Your task to perform on an android device: Go to accessibility settings Image 0: 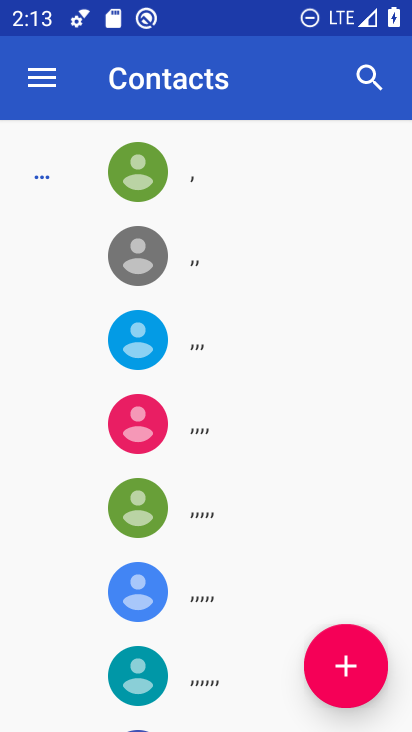
Step 0: press home button
Your task to perform on an android device: Go to accessibility settings Image 1: 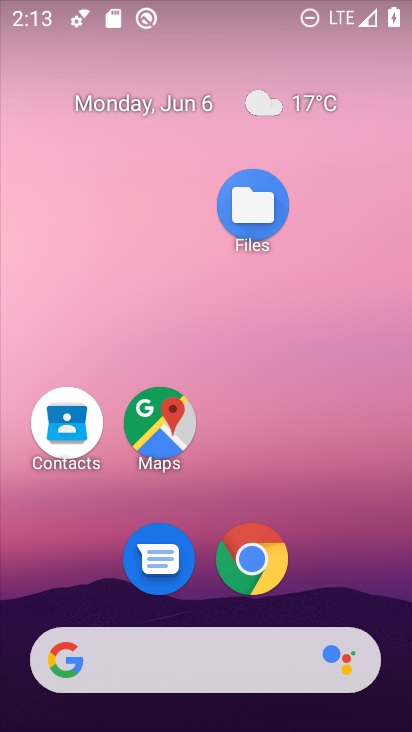
Step 1: drag from (257, 650) to (233, 112)
Your task to perform on an android device: Go to accessibility settings Image 2: 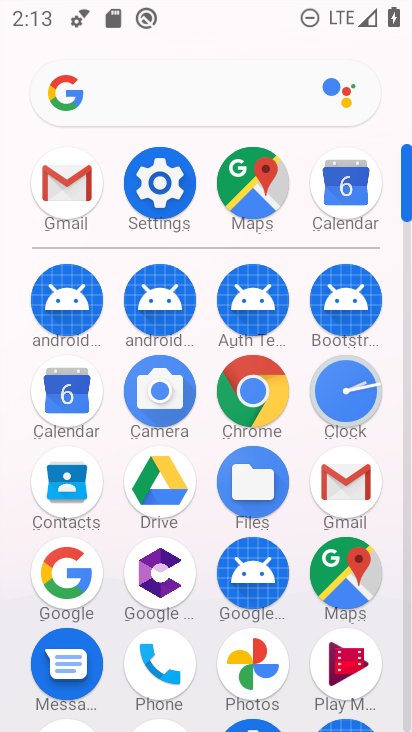
Step 2: click (174, 195)
Your task to perform on an android device: Go to accessibility settings Image 3: 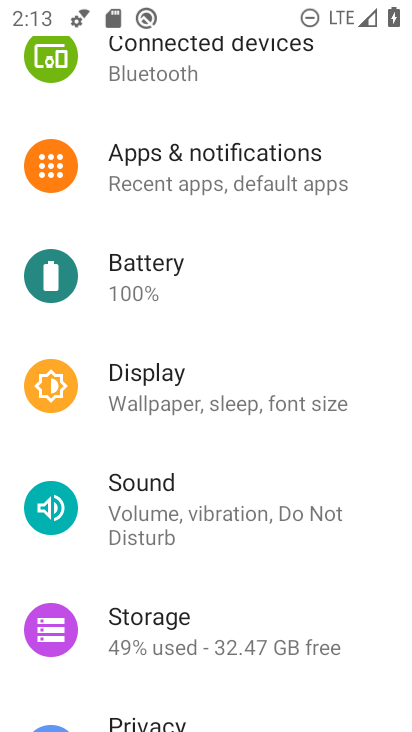
Step 3: drag from (221, 579) to (237, 299)
Your task to perform on an android device: Go to accessibility settings Image 4: 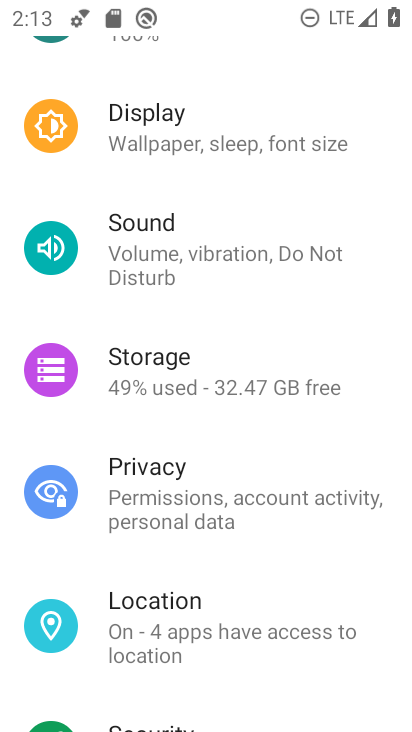
Step 4: drag from (244, 589) to (225, 294)
Your task to perform on an android device: Go to accessibility settings Image 5: 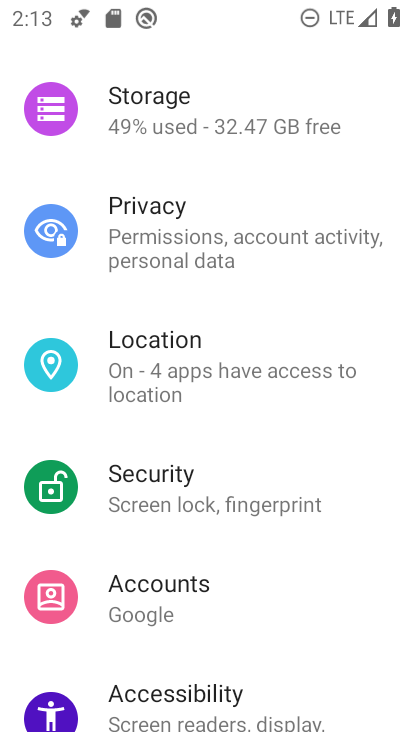
Step 5: drag from (229, 562) to (223, 339)
Your task to perform on an android device: Go to accessibility settings Image 6: 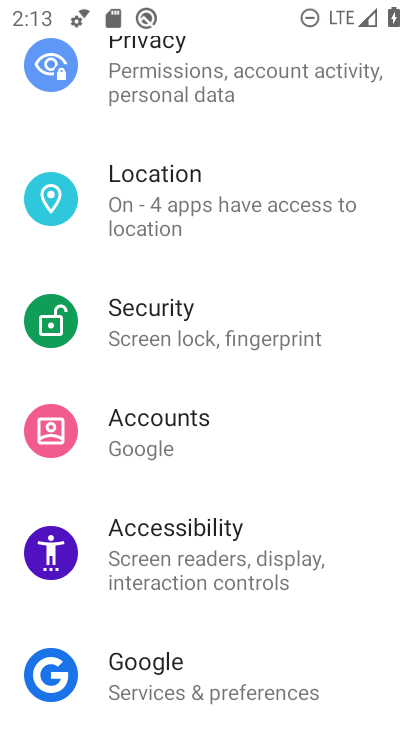
Step 6: click (217, 558)
Your task to perform on an android device: Go to accessibility settings Image 7: 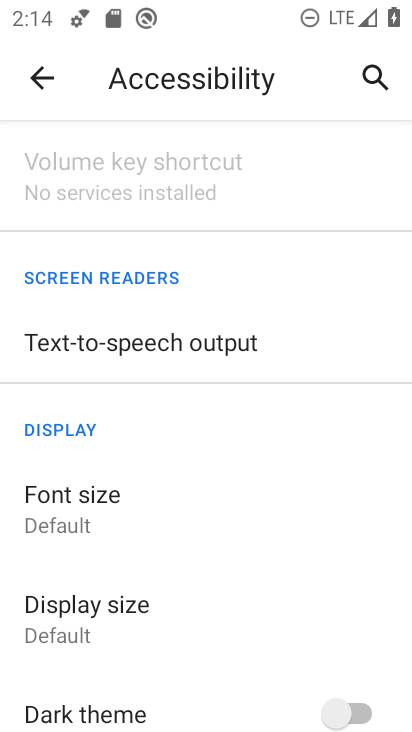
Step 7: task complete